Your task to perform on an android device: toggle notifications settings in the gmail app Image 0: 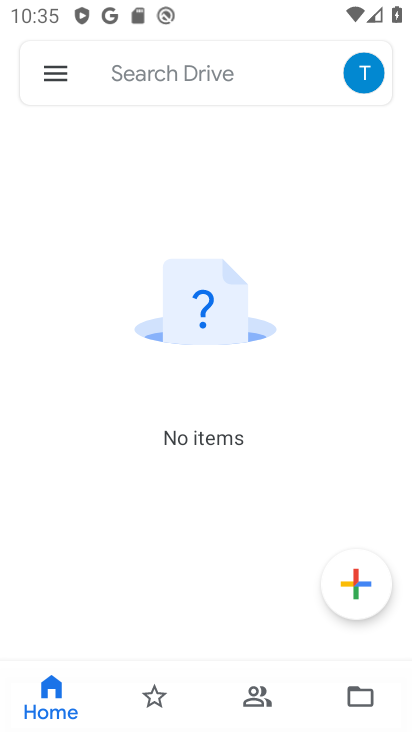
Step 0: press home button
Your task to perform on an android device: toggle notifications settings in the gmail app Image 1: 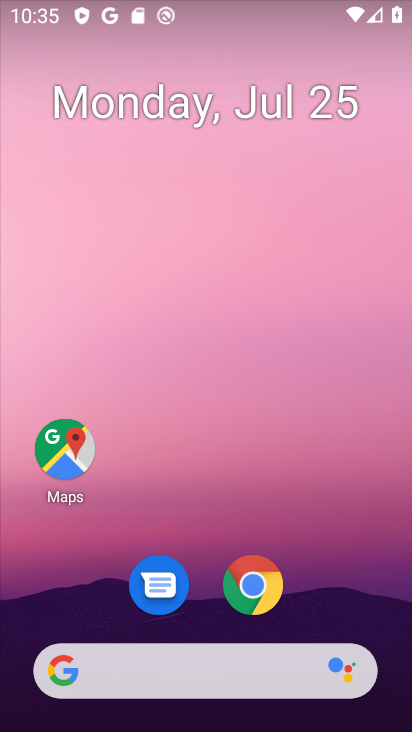
Step 1: drag from (317, 578) to (309, 40)
Your task to perform on an android device: toggle notifications settings in the gmail app Image 2: 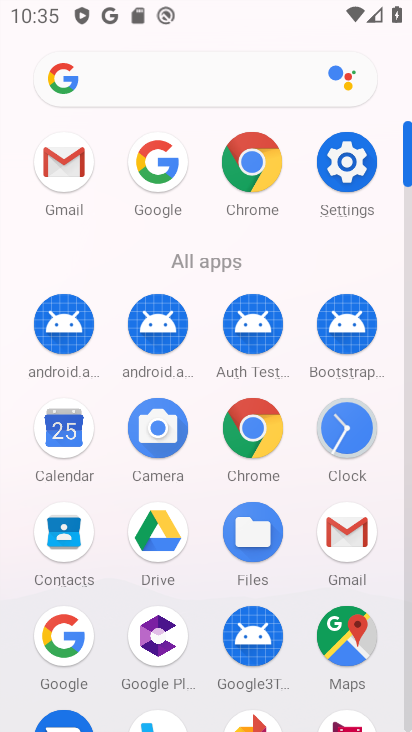
Step 2: click (342, 169)
Your task to perform on an android device: toggle notifications settings in the gmail app Image 3: 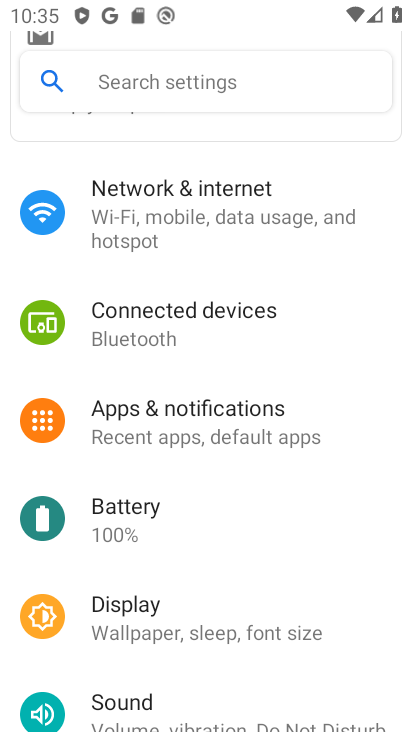
Step 3: click (225, 212)
Your task to perform on an android device: toggle notifications settings in the gmail app Image 4: 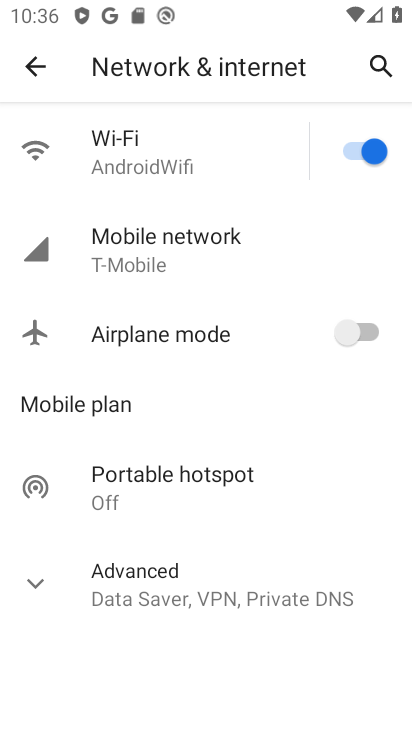
Step 4: press home button
Your task to perform on an android device: toggle notifications settings in the gmail app Image 5: 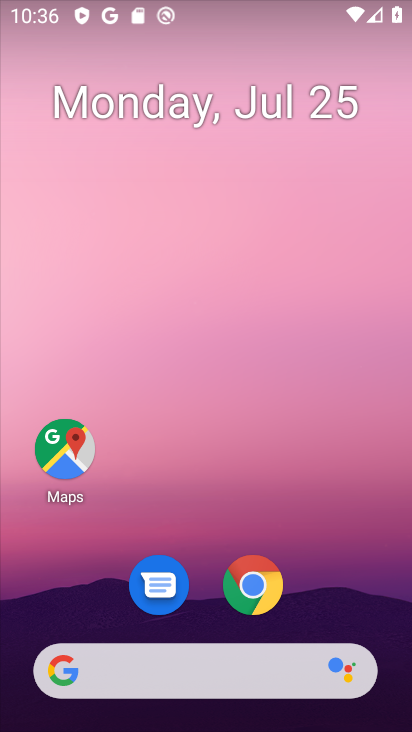
Step 5: drag from (278, 489) to (283, 32)
Your task to perform on an android device: toggle notifications settings in the gmail app Image 6: 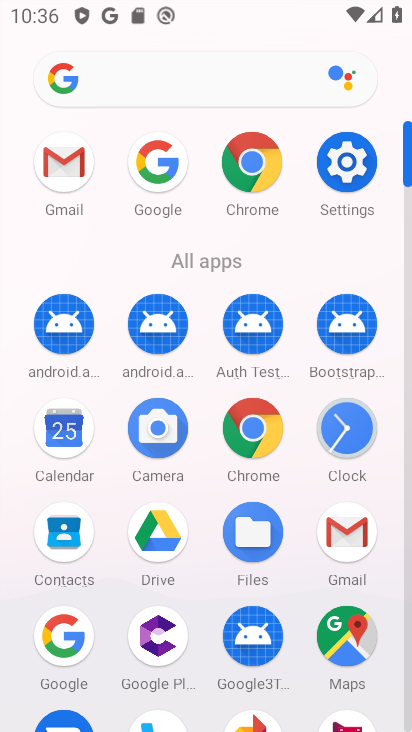
Step 6: click (65, 167)
Your task to perform on an android device: toggle notifications settings in the gmail app Image 7: 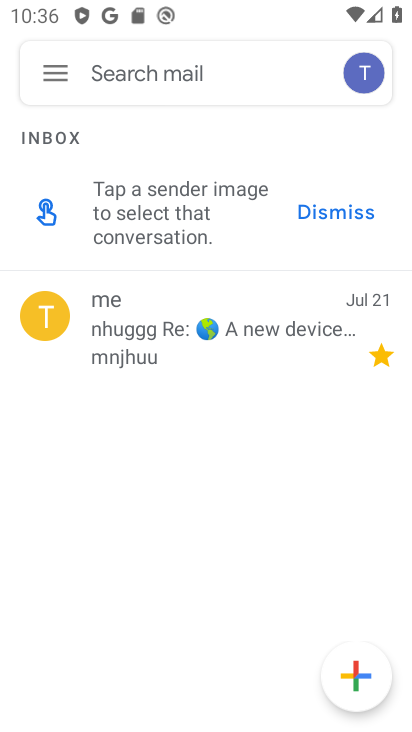
Step 7: click (56, 75)
Your task to perform on an android device: toggle notifications settings in the gmail app Image 8: 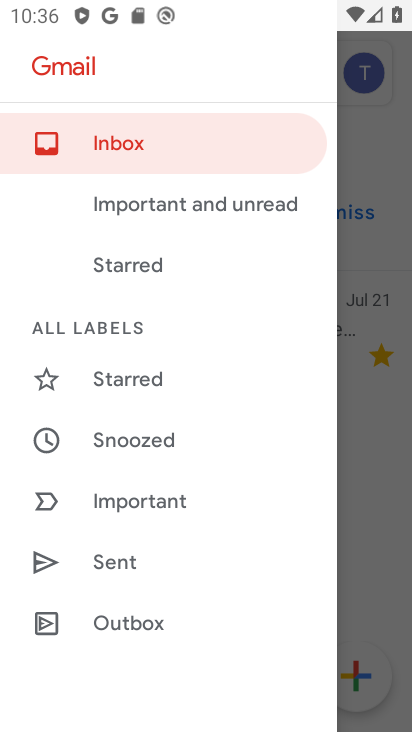
Step 8: drag from (181, 551) to (291, 42)
Your task to perform on an android device: toggle notifications settings in the gmail app Image 9: 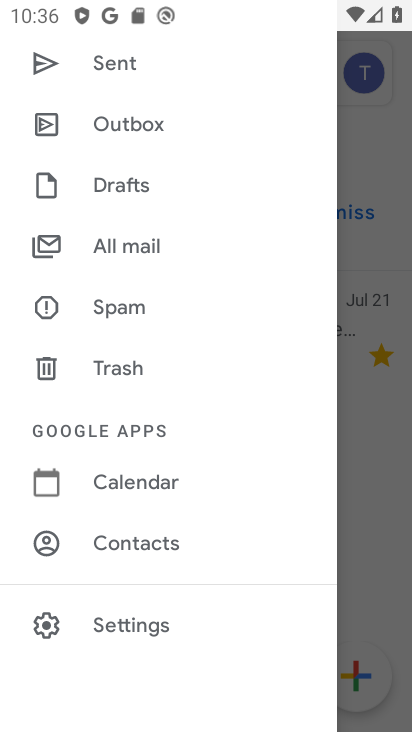
Step 9: click (165, 625)
Your task to perform on an android device: toggle notifications settings in the gmail app Image 10: 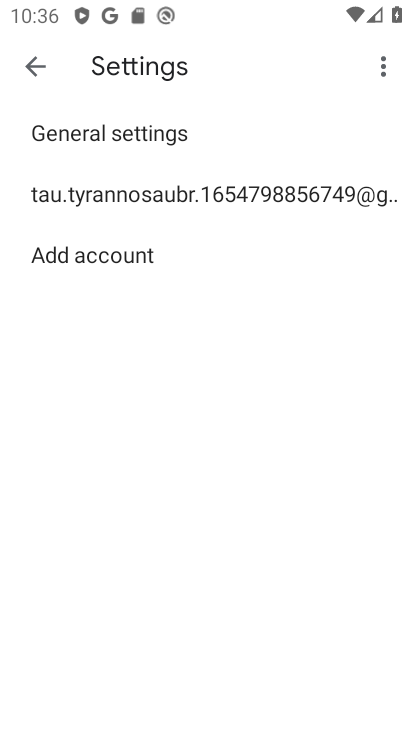
Step 10: click (240, 187)
Your task to perform on an android device: toggle notifications settings in the gmail app Image 11: 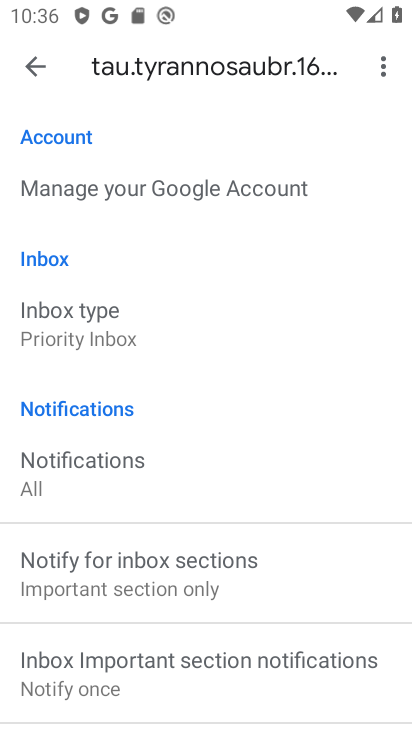
Step 11: drag from (203, 580) to (304, 64)
Your task to perform on an android device: toggle notifications settings in the gmail app Image 12: 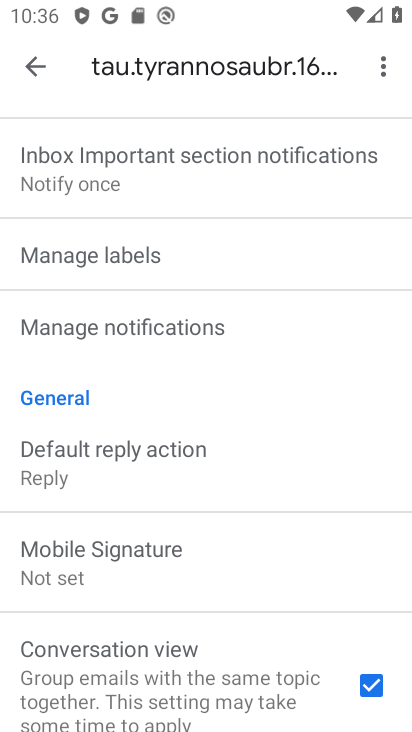
Step 12: click (233, 333)
Your task to perform on an android device: toggle notifications settings in the gmail app Image 13: 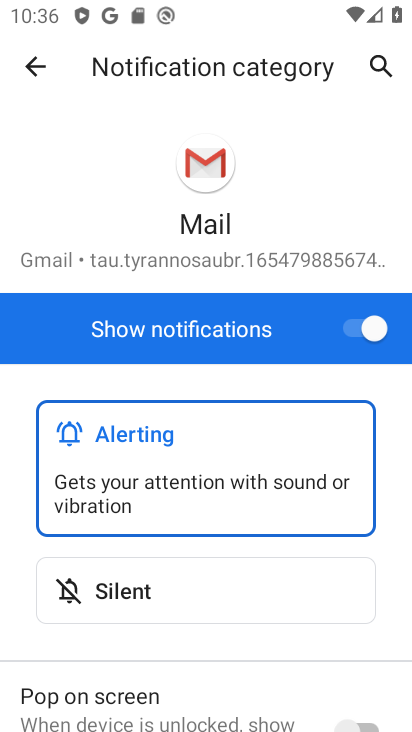
Step 13: click (364, 330)
Your task to perform on an android device: toggle notifications settings in the gmail app Image 14: 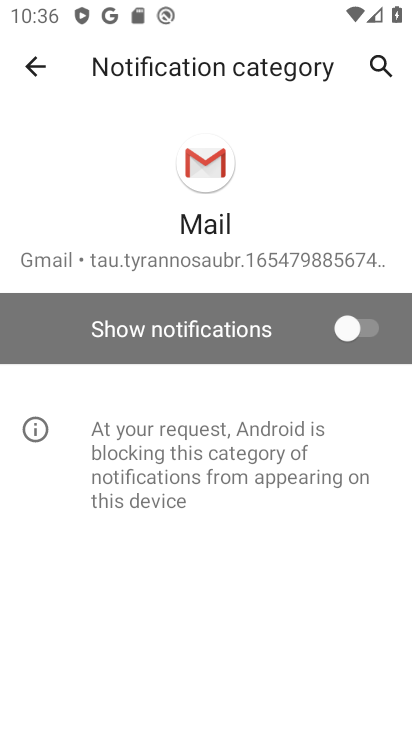
Step 14: task complete